Your task to perform on an android device: Is it going to rain tomorrow? Image 0: 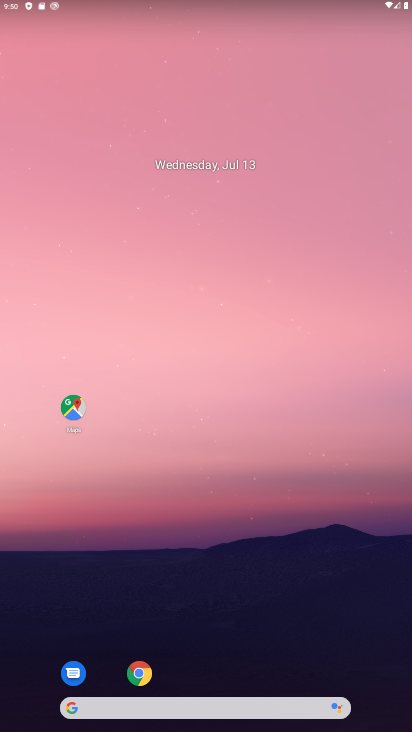
Step 0: drag from (241, 678) to (199, 86)
Your task to perform on an android device: Is it going to rain tomorrow? Image 1: 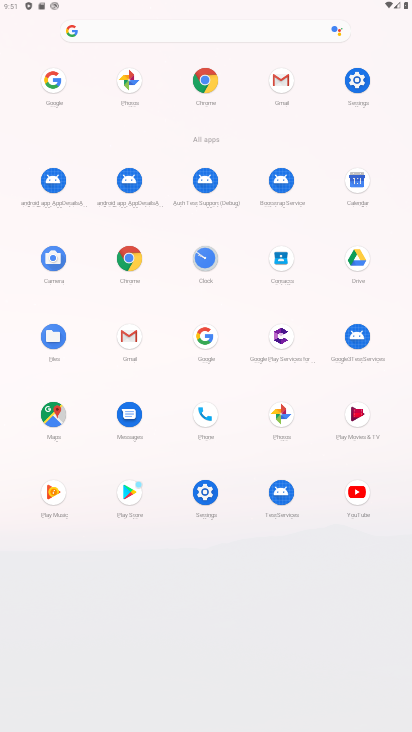
Step 1: click (201, 340)
Your task to perform on an android device: Is it going to rain tomorrow? Image 2: 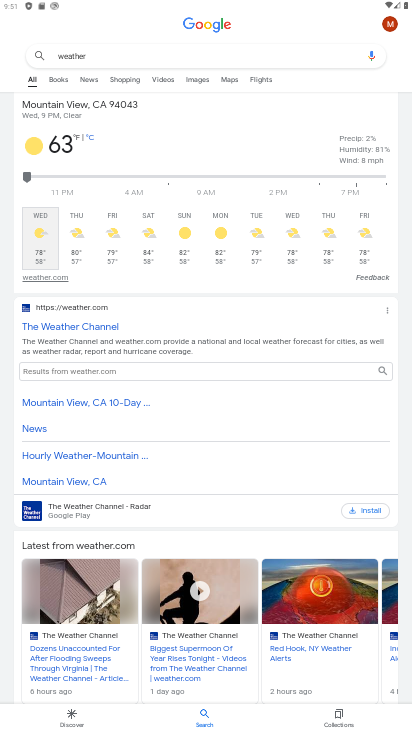
Step 2: click (95, 57)
Your task to perform on an android device: Is it going to rain tomorrow? Image 3: 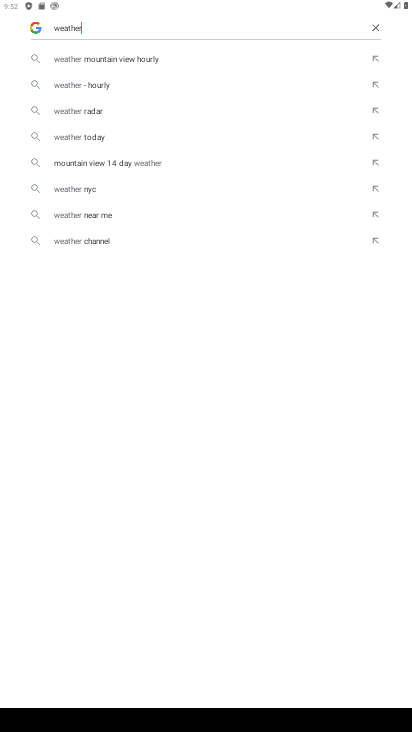
Step 3: click (381, 25)
Your task to perform on an android device: Is it going to rain tomorrow? Image 4: 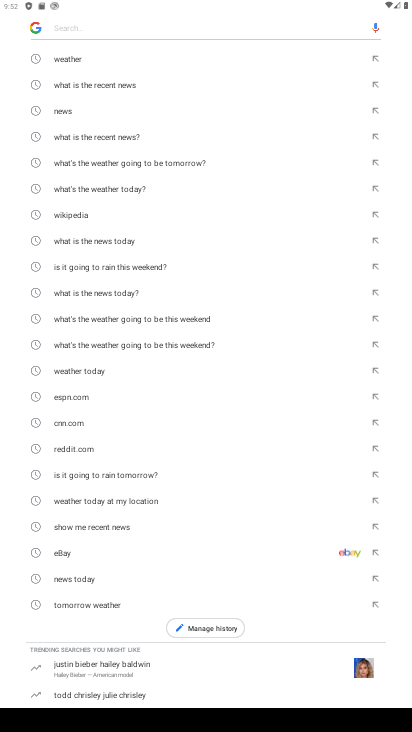
Step 4: click (77, 471)
Your task to perform on an android device: Is it going to rain tomorrow? Image 5: 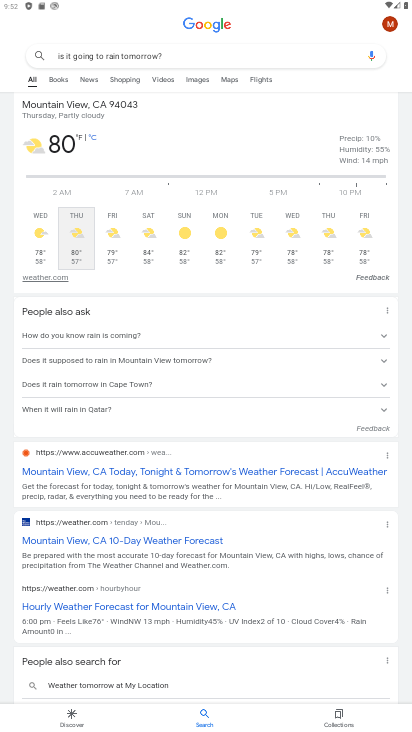
Step 5: task complete